Your task to perform on an android device: see tabs open on other devices in the chrome app Image 0: 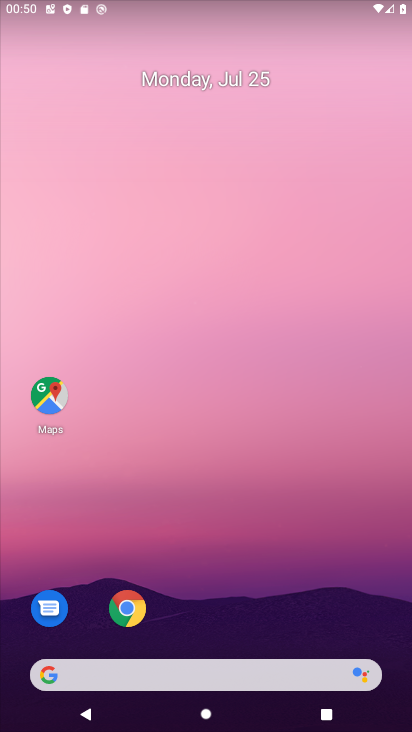
Step 0: drag from (199, 634) to (189, 109)
Your task to perform on an android device: see tabs open on other devices in the chrome app Image 1: 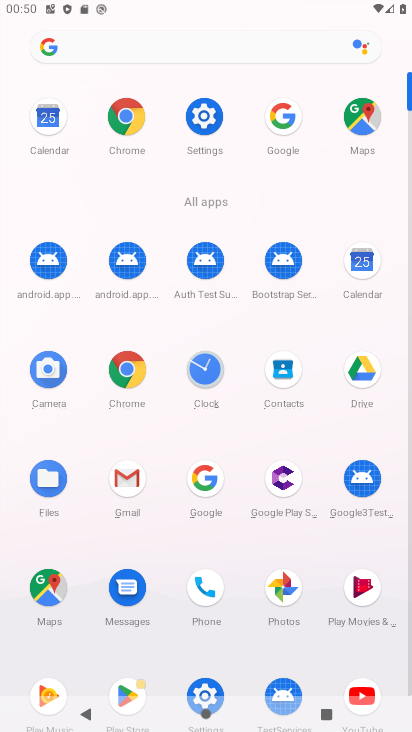
Step 1: click (124, 355)
Your task to perform on an android device: see tabs open on other devices in the chrome app Image 2: 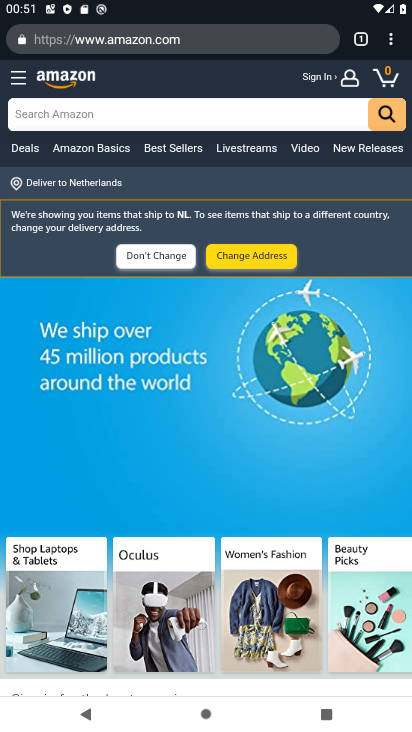
Step 2: click (362, 41)
Your task to perform on an android device: see tabs open on other devices in the chrome app Image 3: 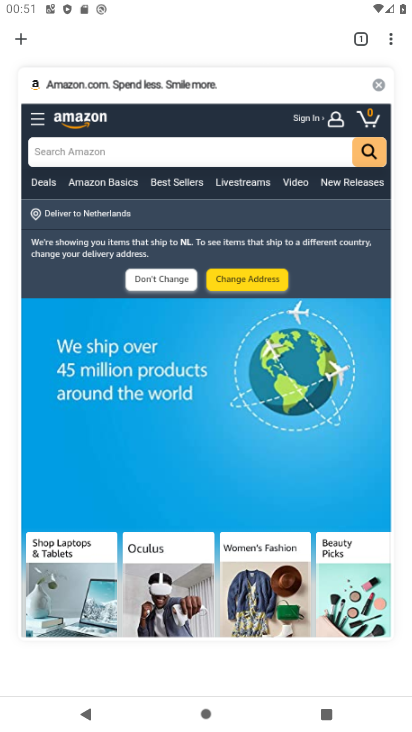
Step 3: task complete